Your task to perform on an android device: Is it going to rain tomorrow? Image 0: 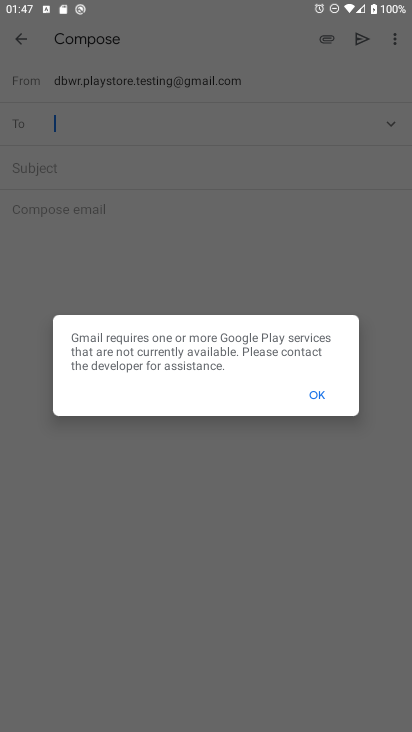
Step 0: press home button
Your task to perform on an android device: Is it going to rain tomorrow? Image 1: 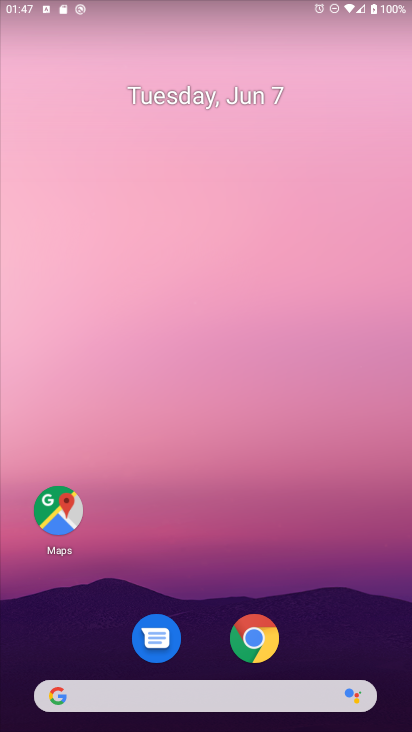
Step 1: click (210, 698)
Your task to perform on an android device: Is it going to rain tomorrow? Image 2: 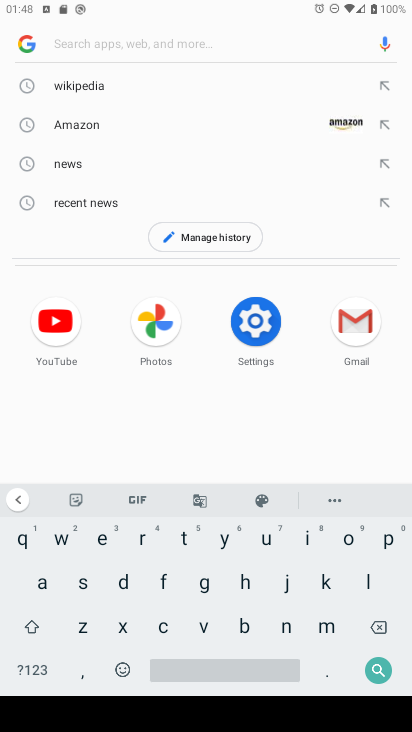
Step 2: click (139, 545)
Your task to perform on an android device: Is it going to rain tomorrow? Image 3: 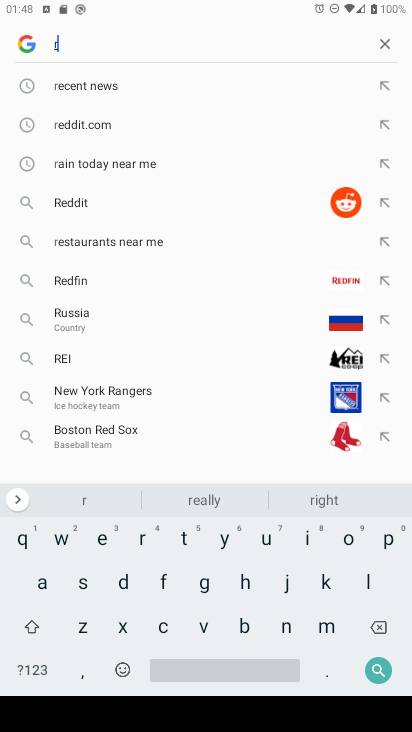
Step 3: click (38, 579)
Your task to perform on an android device: Is it going to rain tomorrow? Image 4: 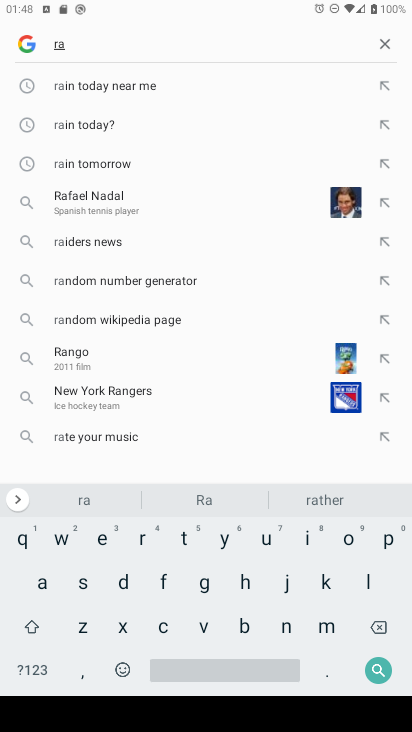
Step 4: click (121, 122)
Your task to perform on an android device: Is it going to rain tomorrow? Image 5: 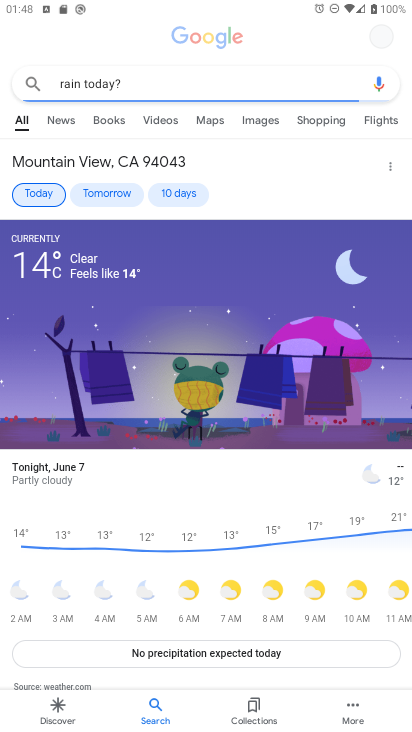
Step 5: click (147, 42)
Your task to perform on an android device: Is it going to rain tomorrow? Image 6: 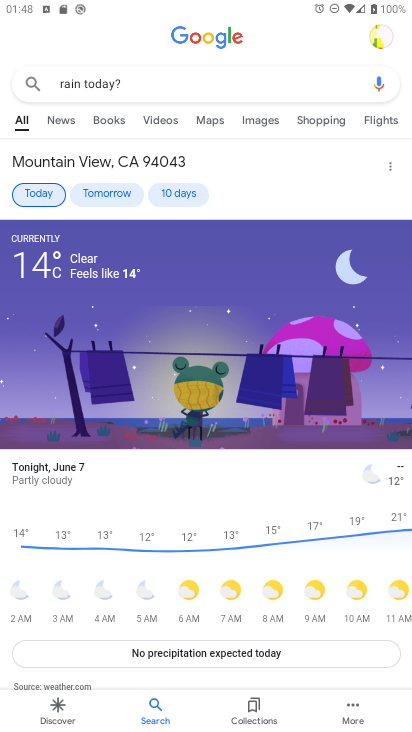
Step 6: click (112, 189)
Your task to perform on an android device: Is it going to rain tomorrow? Image 7: 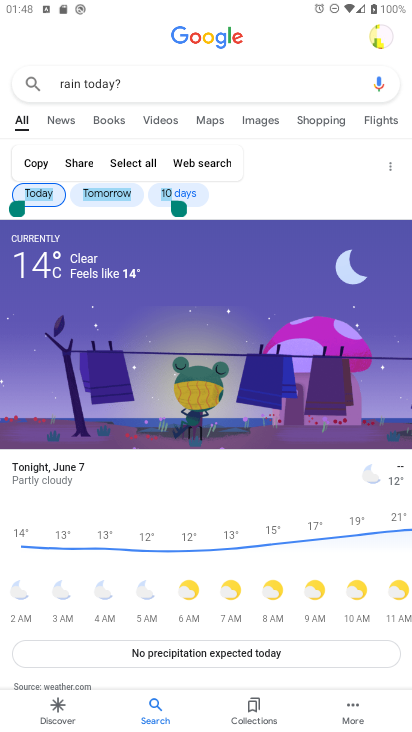
Step 7: task complete